Your task to perform on an android device: Open Chrome and go to the settings page Image 0: 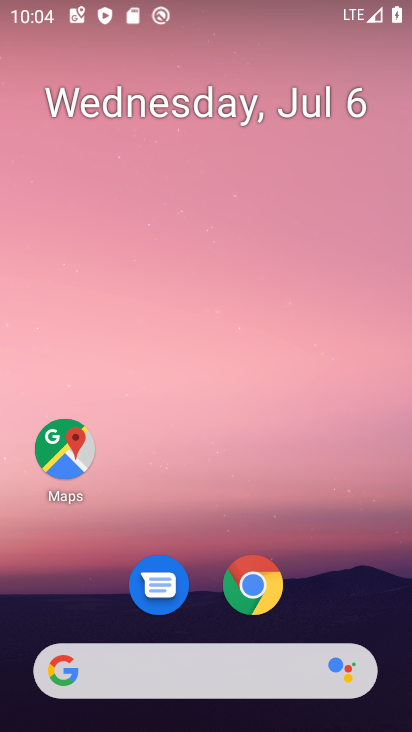
Step 0: click (254, 582)
Your task to perform on an android device: Open Chrome and go to the settings page Image 1: 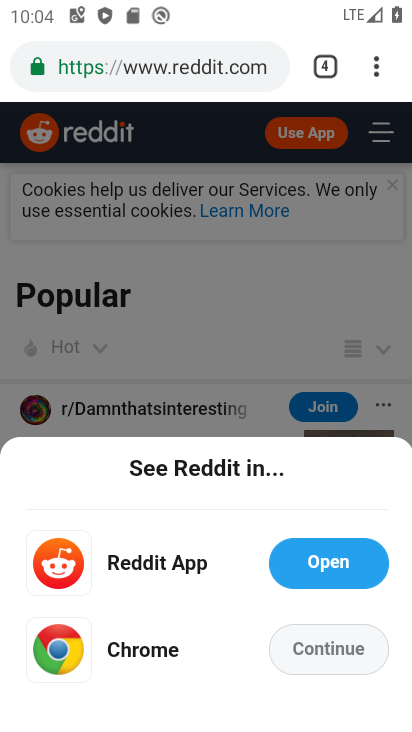
Step 1: click (376, 71)
Your task to perform on an android device: Open Chrome and go to the settings page Image 2: 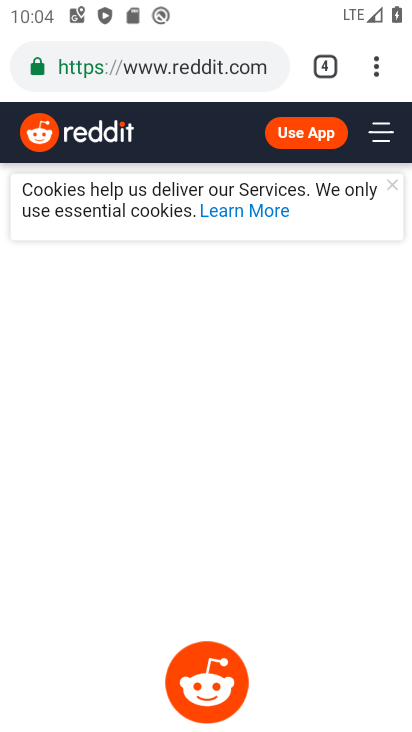
Step 2: click (373, 62)
Your task to perform on an android device: Open Chrome and go to the settings page Image 3: 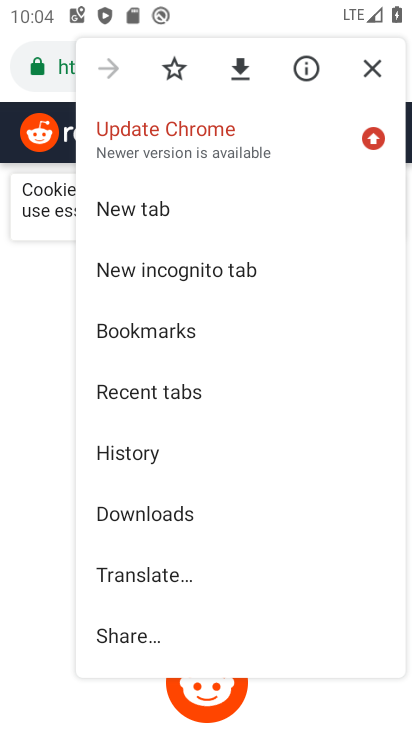
Step 3: drag from (229, 497) to (242, 82)
Your task to perform on an android device: Open Chrome and go to the settings page Image 4: 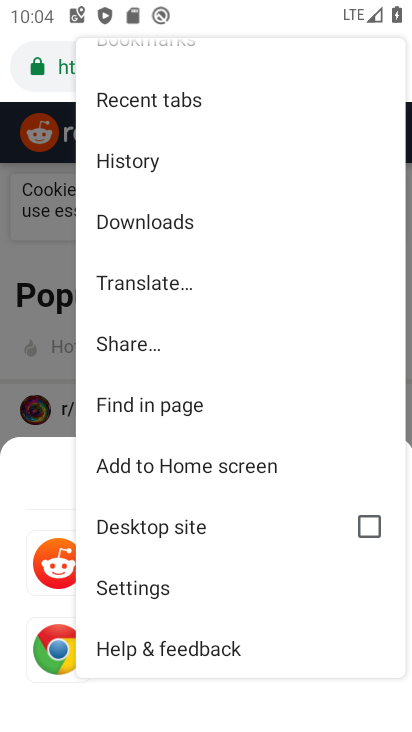
Step 4: click (152, 588)
Your task to perform on an android device: Open Chrome and go to the settings page Image 5: 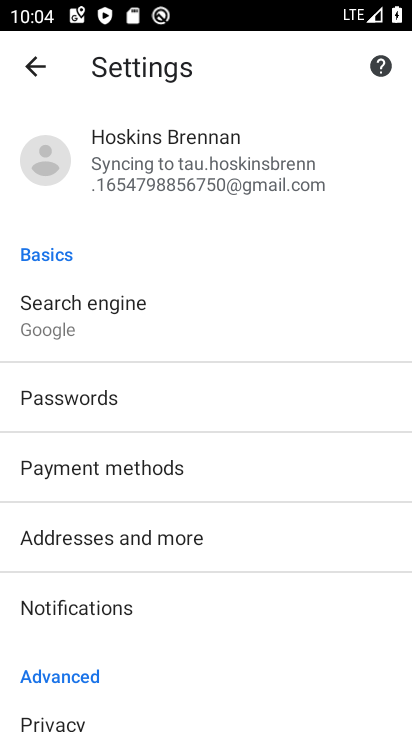
Step 5: task complete